Your task to perform on an android device: Go to privacy settings Image 0: 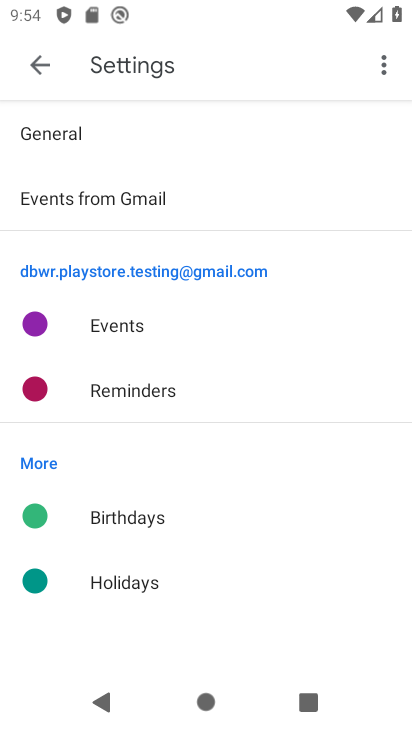
Step 0: press home button
Your task to perform on an android device: Go to privacy settings Image 1: 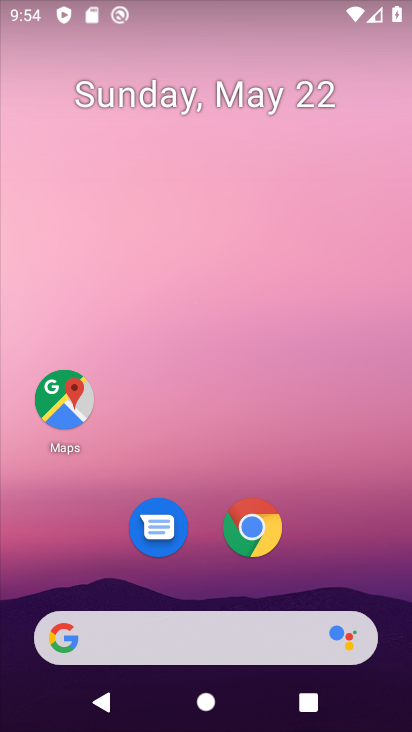
Step 1: drag from (343, 589) to (321, 198)
Your task to perform on an android device: Go to privacy settings Image 2: 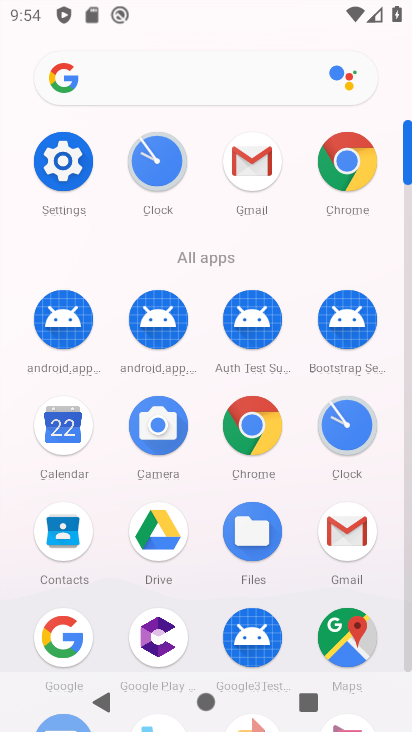
Step 2: click (79, 176)
Your task to perform on an android device: Go to privacy settings Image 3: 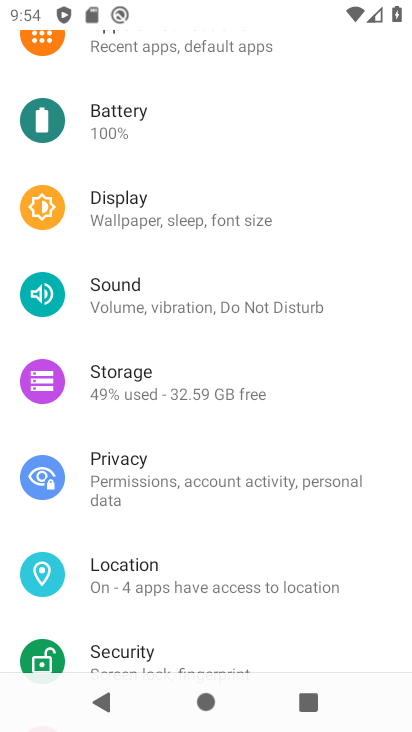
Step 3: click (254, 506)
Your task to perform on an android device: Go to privacy settings Image 4: 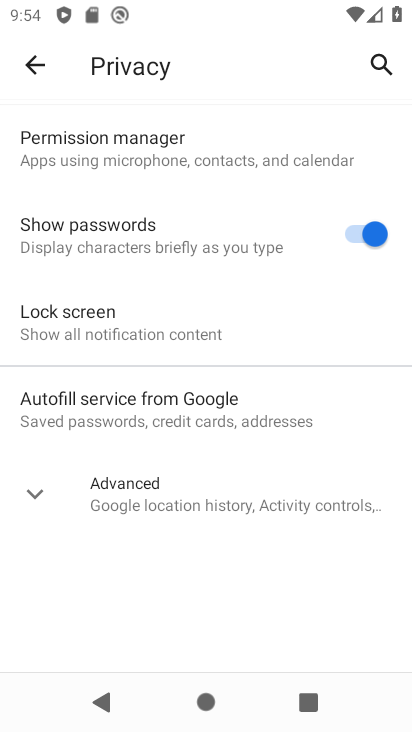
Step 4: task complete